Your task to perform on an android device: toggle show notifications on the lock screen Image 0: 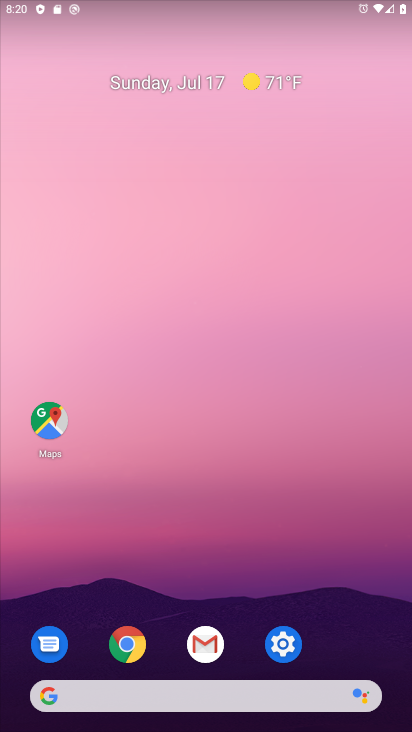
Step 0: click (274, 647)
Your task to perform on an android device: toggle show notifications on the lock screen Image 1: 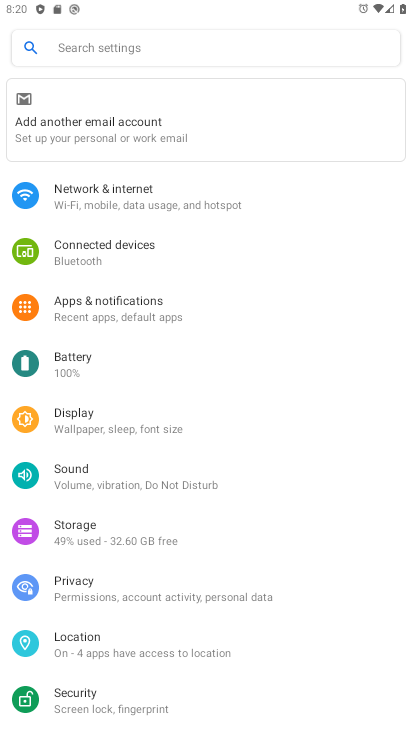
Step 1: click (132, 50)
Your task to perform on an android device: toggle show notifications on the lock screen Image 2: 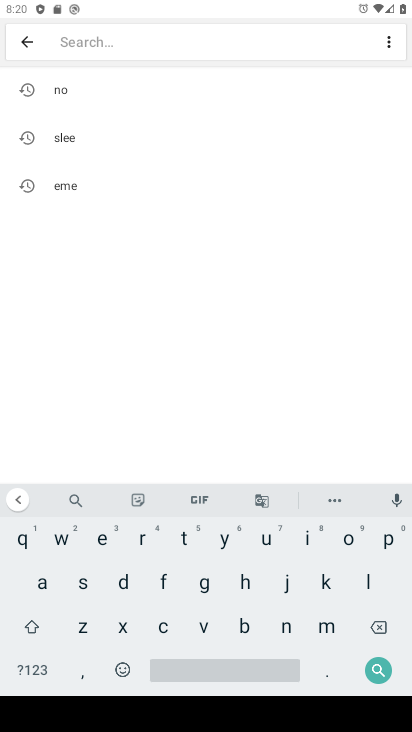
Step 2: click (89, 101)
Your task to perform on an android device: toggle show notifications on the lock screen Image 3: 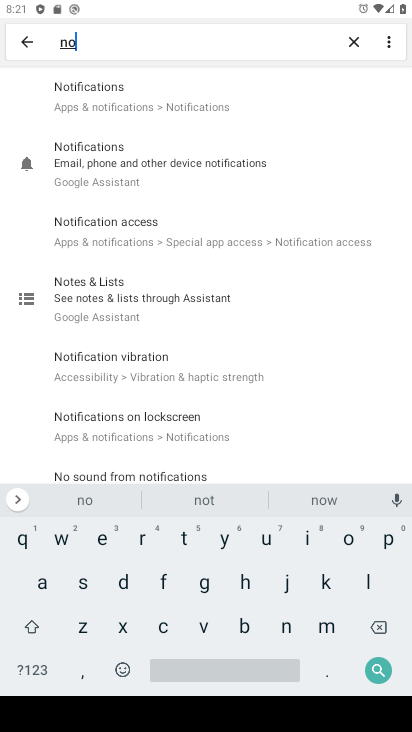
Step 3: click (142, 95)
Your task to perform on an android device: toggle show notifications on the lock screen Image 4: 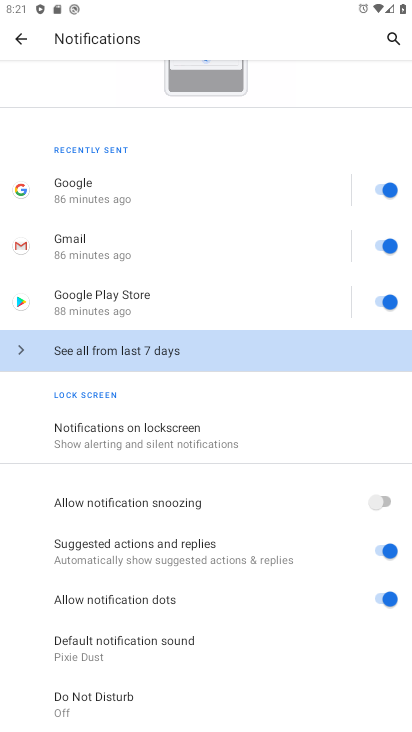
Step 4: click (169, 435)
Your task to perform on an android device: toggle show notifications on the lock screen Image 5: 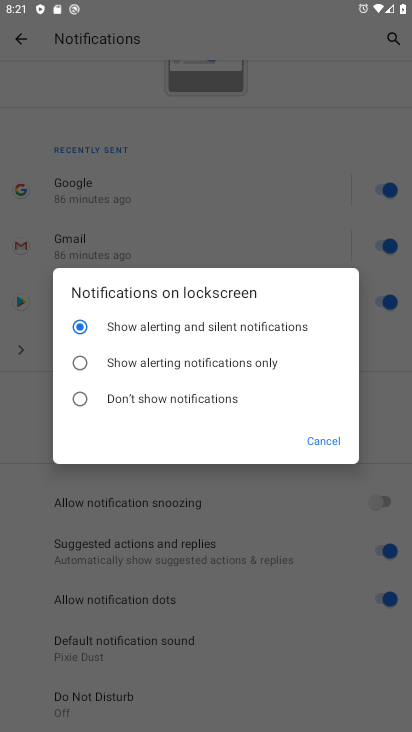
Step 5: task complete